Your task to perform on an android device: Open Chrome and go to settings Image 0: 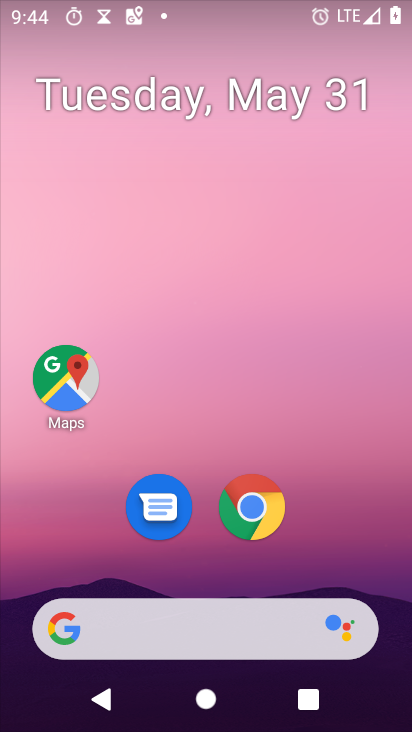
Step 0: click (262, 512)
Your task to perform on an android device: Open Chrome and go to settings Image 1: 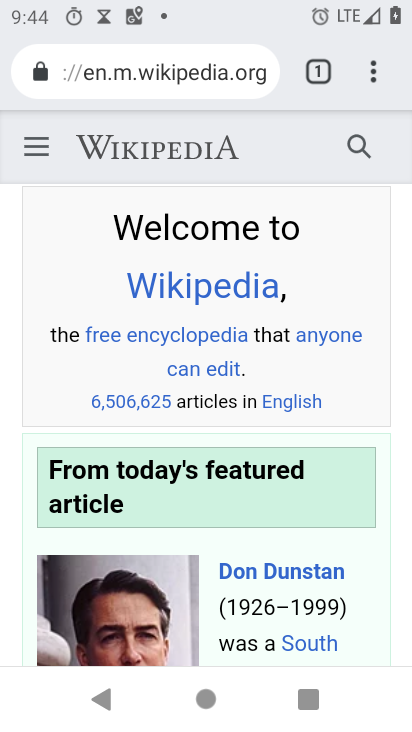
Step 1: click (368, 66)
Your task to perform on an android device: Open Chrome and go to settings Image 2: 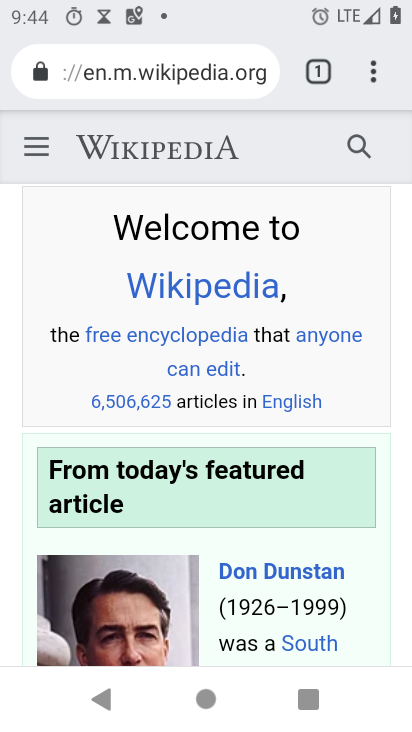
Step 2: click (385, 62)
Your task to perform on an android device: Open Chrome and go to settings Image 3: 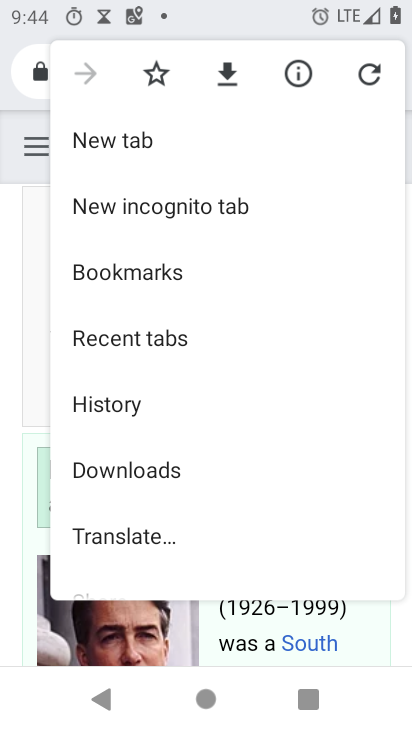
Step 3: drag from (126, 551) to (308, 96)
Your task to perform on an android device: Open Chrome and go to settings Image 4: 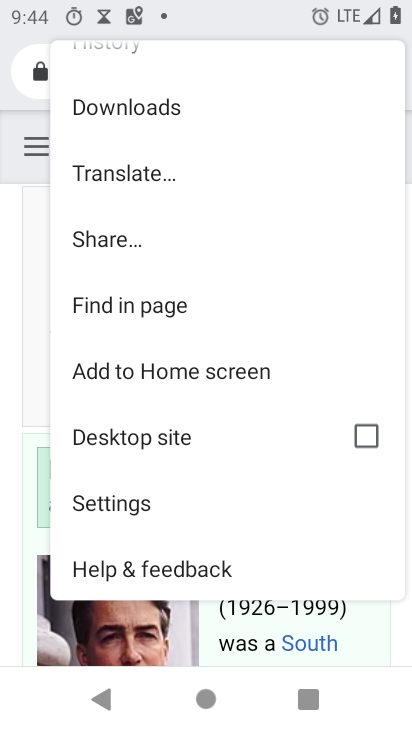
Step 4: click (121, 499)
Your task to perform on an android device: Open Chrome and go to settings Image 5: 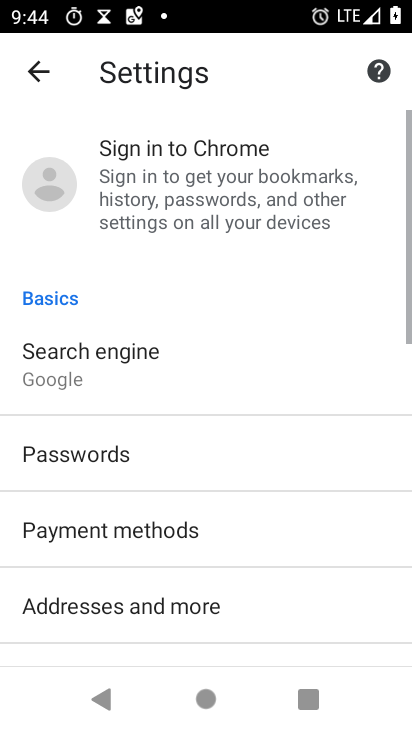
Step 5: task complete